Your task to perform on an android device: Find coffee shops on Maps Image 0: 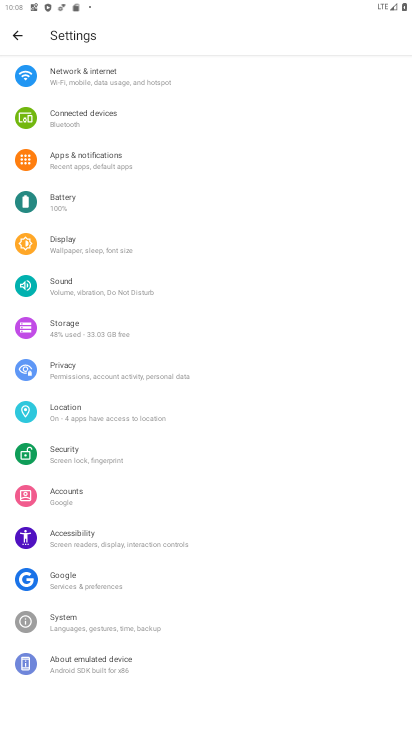
Step 0: press home button
Your task to perform on an android device: Find coffee shops on Maps Image 1: 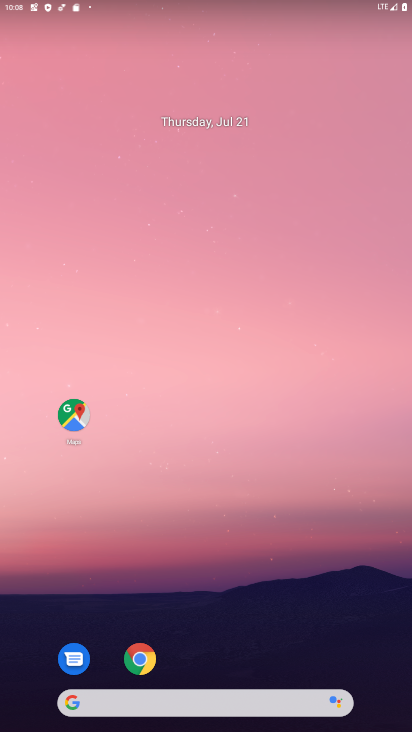
Step 1: drag from (297, 464) to (170, 0)
Your task to perform on an android device: Find coffee shops on Maps Image 2: 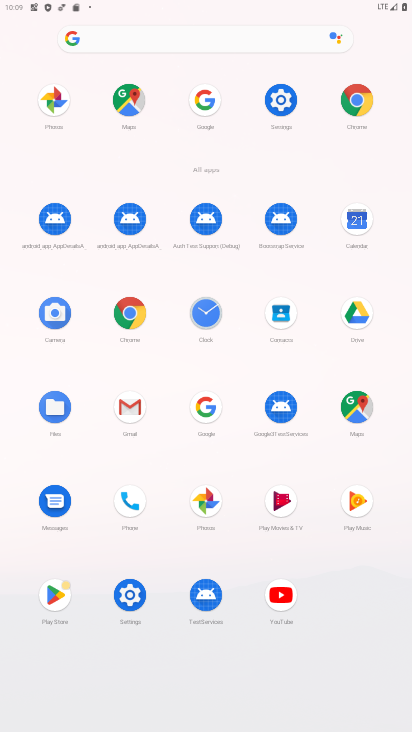
Step 2: click (356, 403)
Your task to perform on an android device: Find coffee shops on Maps Image 3: 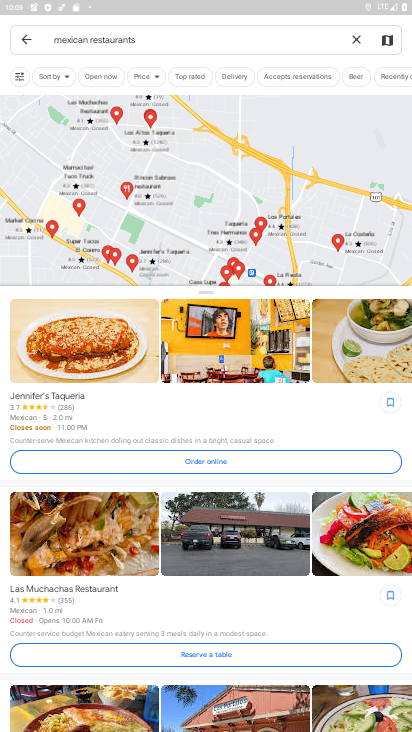
Step 3: click (304, 36)
Your task to perform on an android device: Find coffee shops on Maps Image 4: 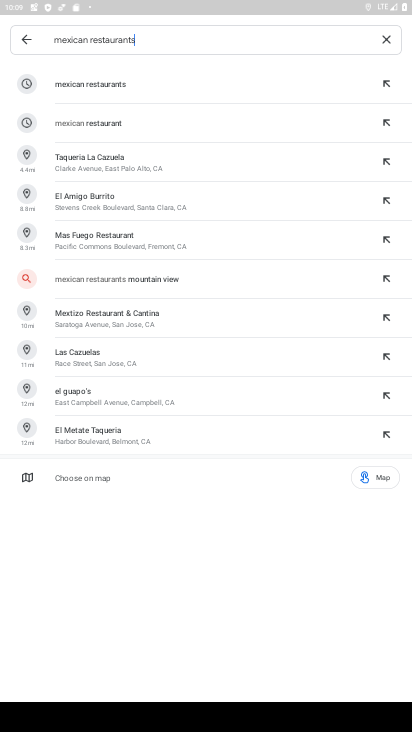
Step 4: click (378, 45)
Your task to perform on an android device: Find coffee shops on Maps Image 5: 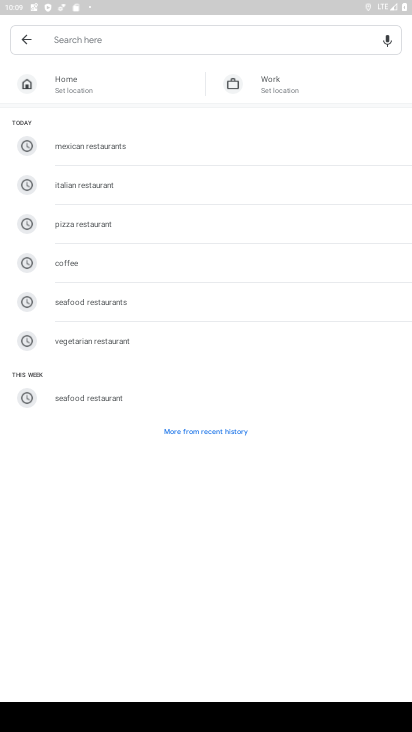
Step 5: type "coffee shops"
Your task to perform on an android device: Find coffee shops on Maps Image 6: 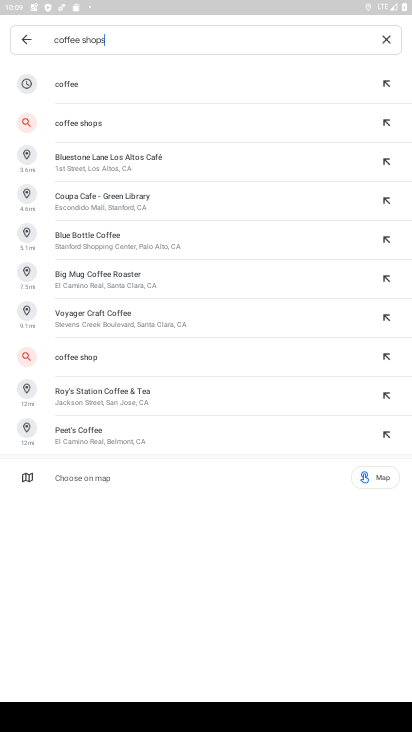
Step 6: press enter
Your task to perform on an android device: Find coffee shops on Maps Image 7: 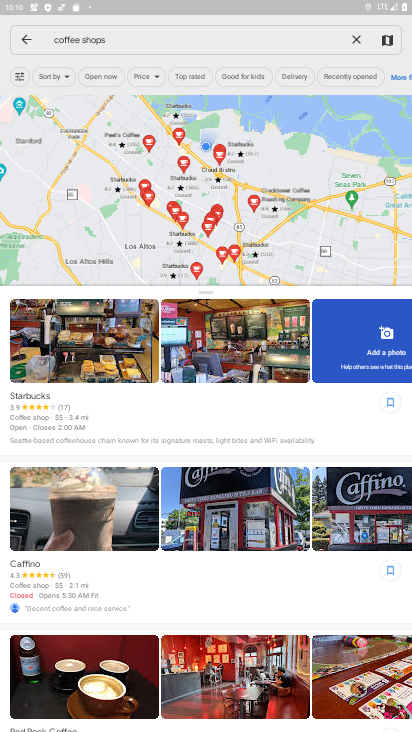
Step 7: task complete